Your task to perform on an android device: change your default location settings in chrome Image 0: 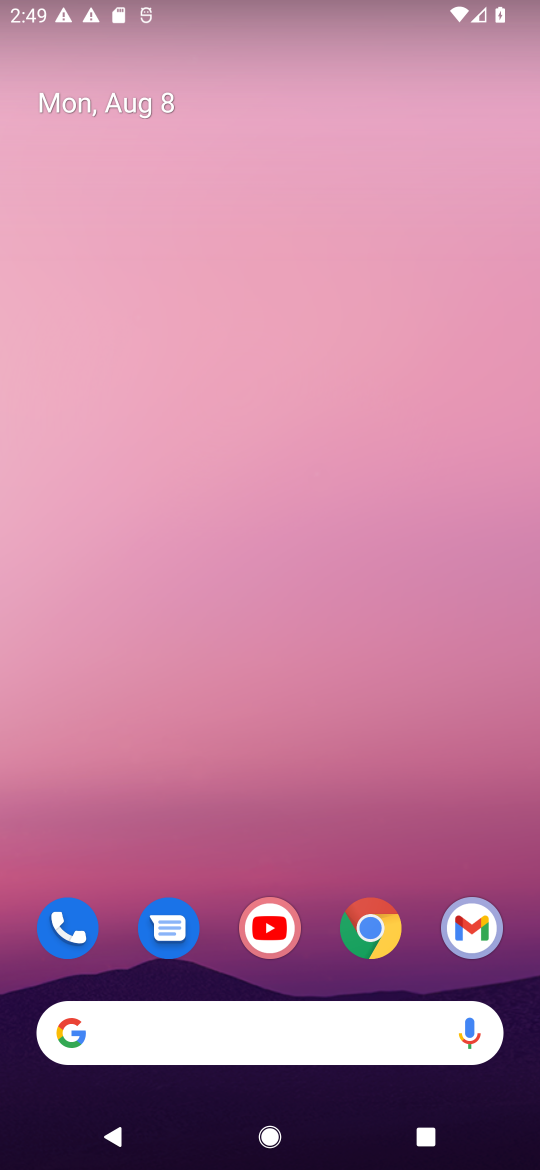
Step 0: click (357, 934)
Your task to perform on an android device: change your default location settings in chrome Image 1: 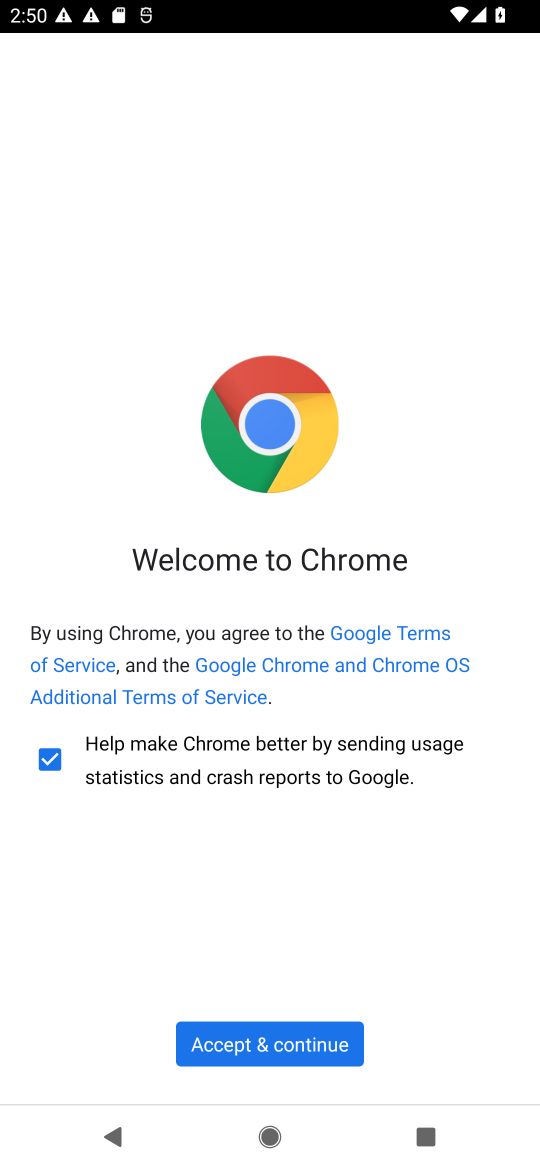
Step 1: click (324, 1054)
Your task to perform on an android device: change your default location settings in chrome Image 2: 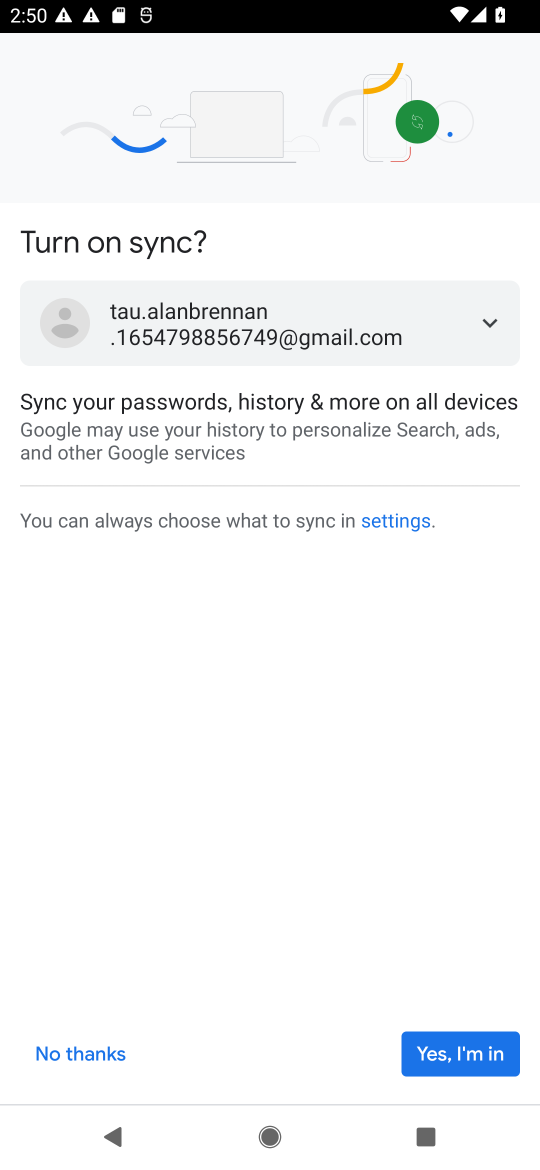
Step 2: click (422, 1052)
Your task to perform on an android device: change your default location settings in chrome Image 3: 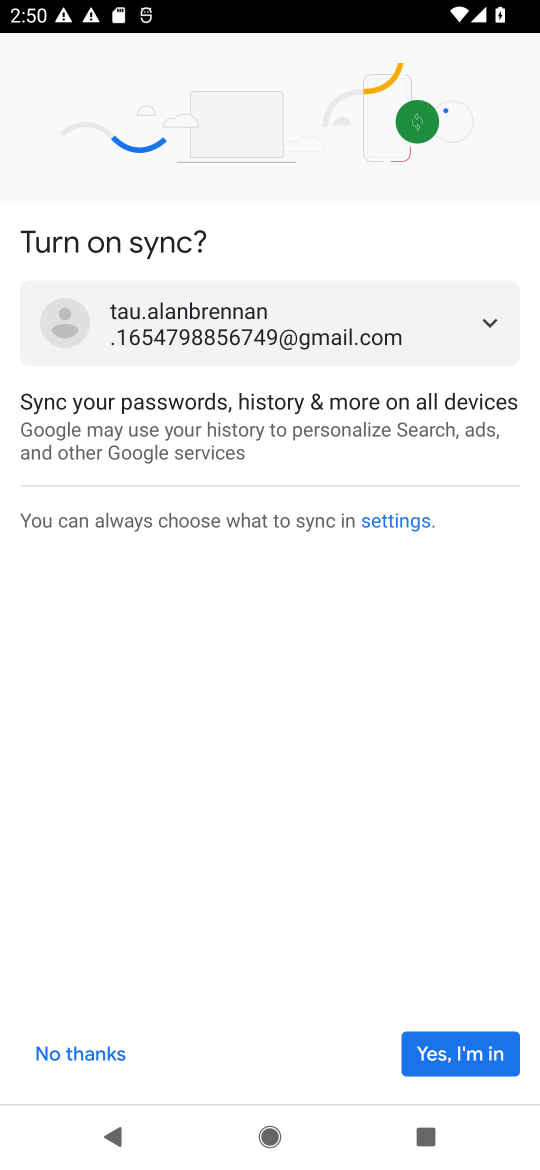
Step 3: click (451, 1052)
Your task to perform on an android device: change your default location settings in chrome Image 4: 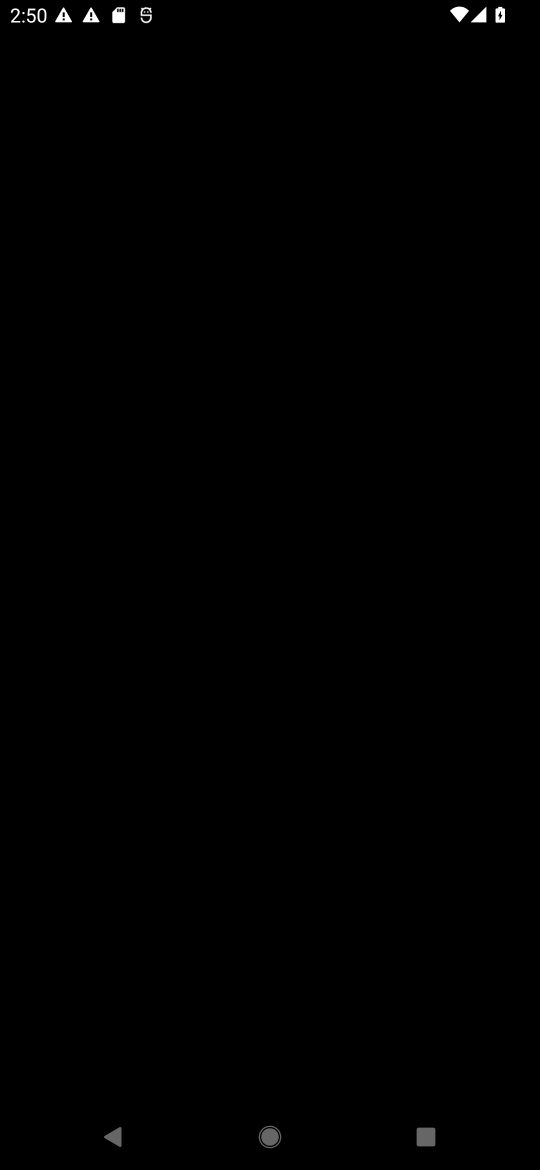
Step 4: click (451, 1052)
Your task to perform on an android device: change your default location settings in chrome Image 5: 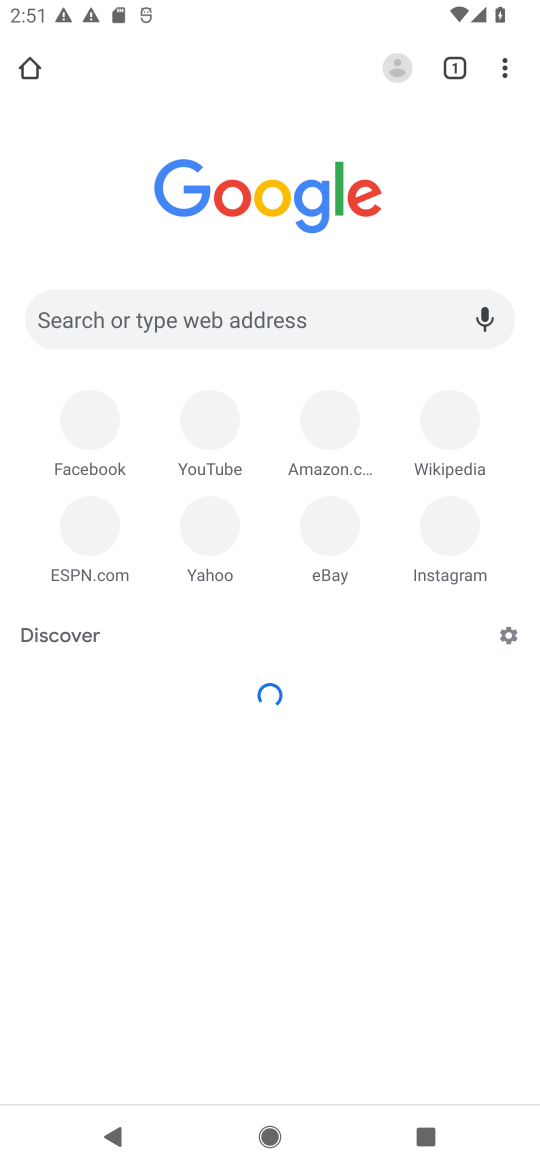
Step 5: click (514, 71)
Your task to perform on an android device: change your default location settings in chrome Image 6: 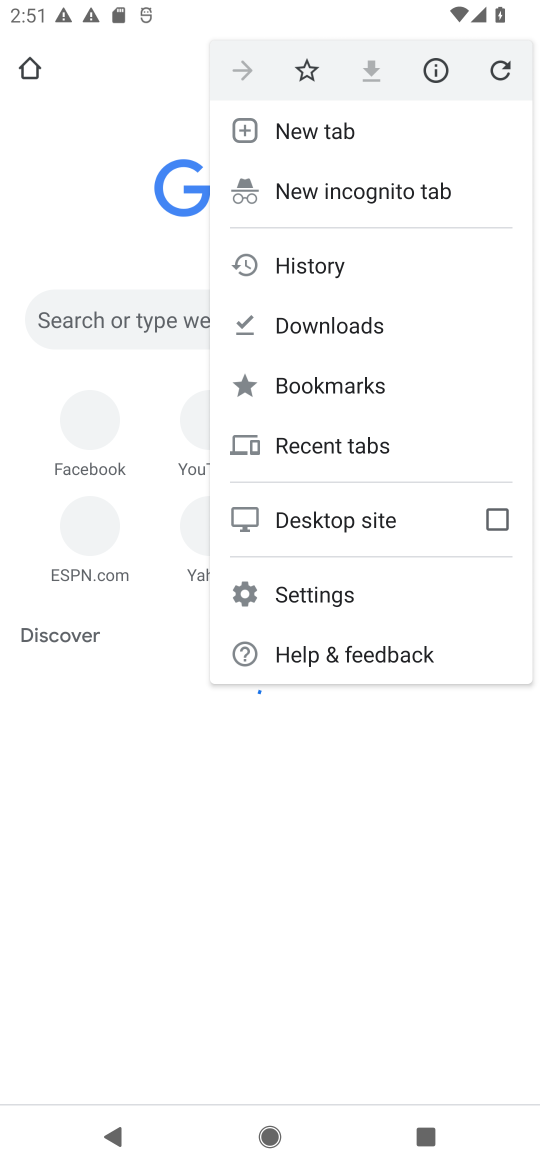
Step 6: click (362, 595)
Your task to perform on an android device: change your default location settings in chrome Image 7: 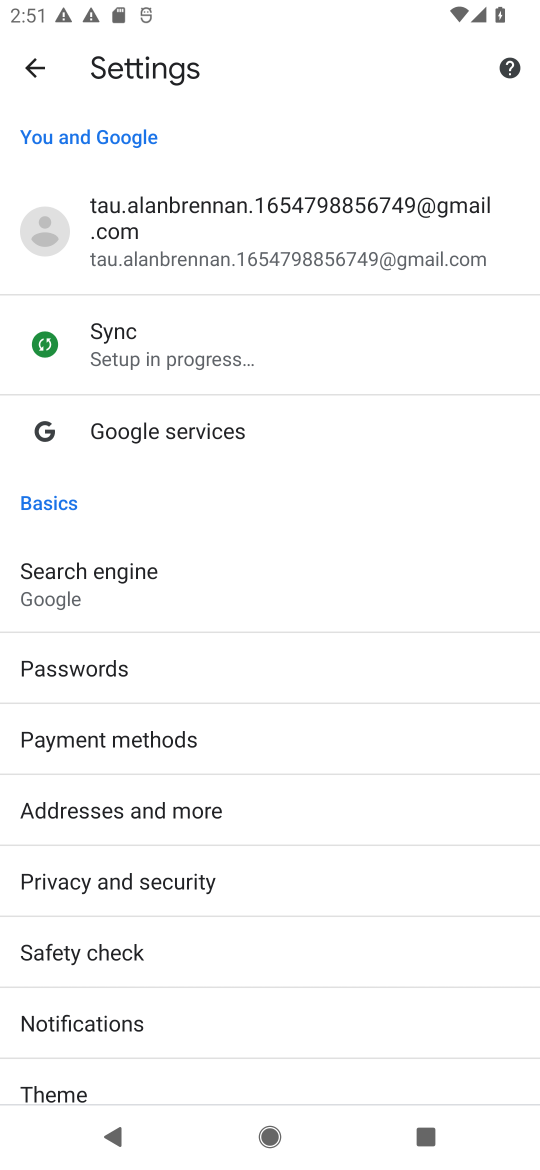
Step 7: drag from (184, 1059) to (180, 487)
Your task to perform on an android device: change your default location settings in chrome Image 8: 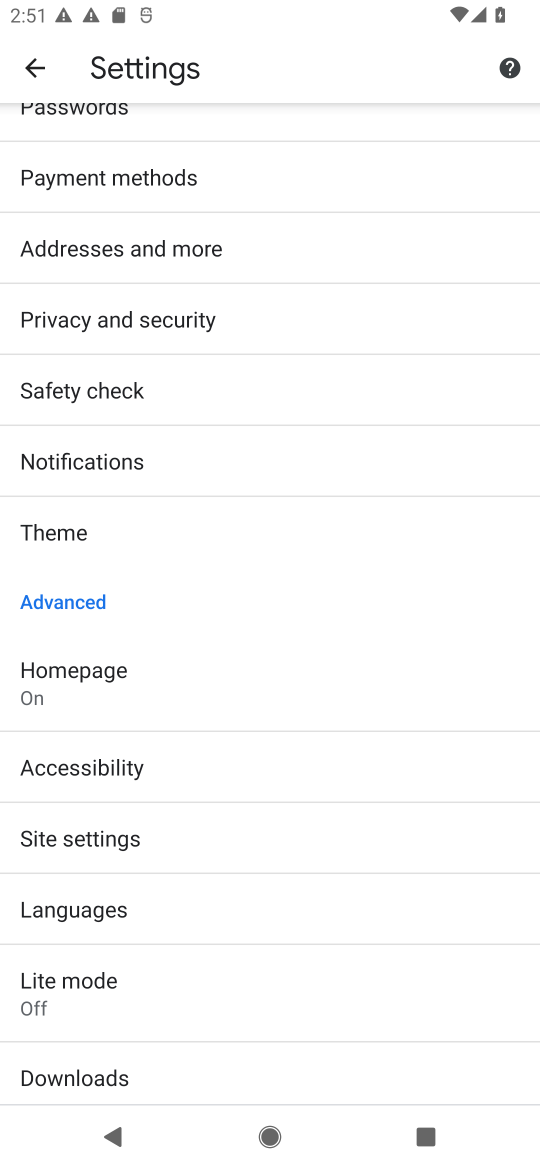
Step 8: drag from (392, 1011) to (422, 401)
Your task to perform on an android device: change your default location settings in chrome Image 9: 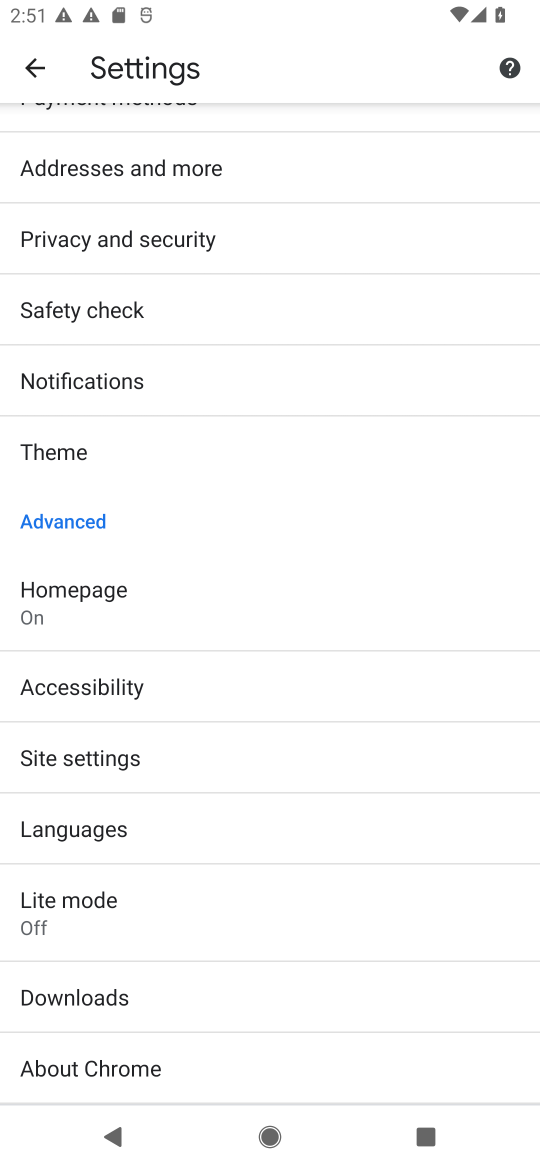
Step 9: drag from (282, 290) to (293, 1043)
Your task to perform on an android device: change your default location settings in chrome Image 10: 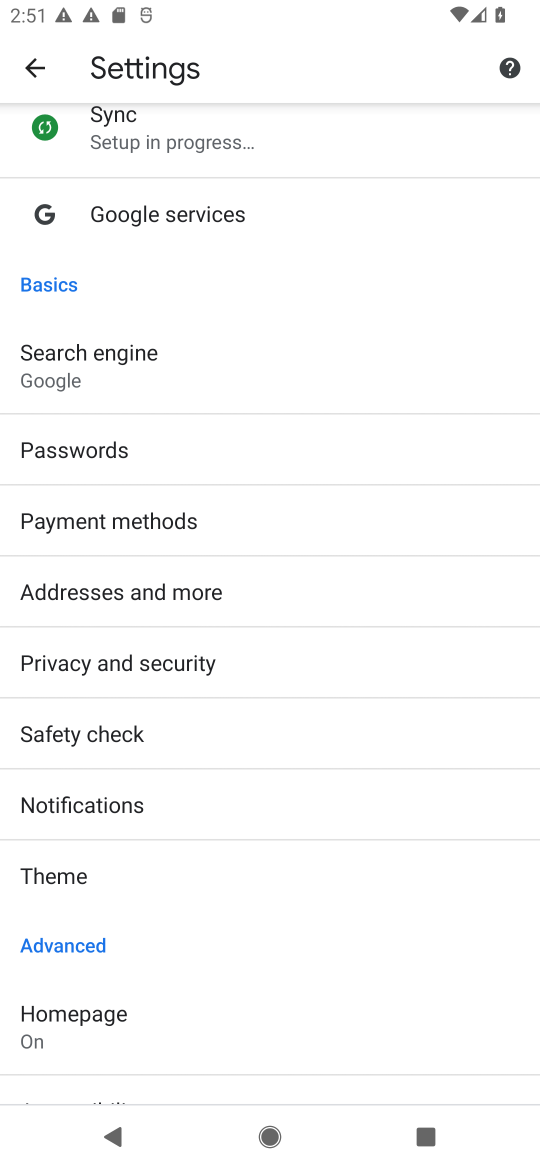
Step 10: drag from (341, 353) to (363, 999)
Your task to perform on an android device: change your default location settings in chrome Image 11: 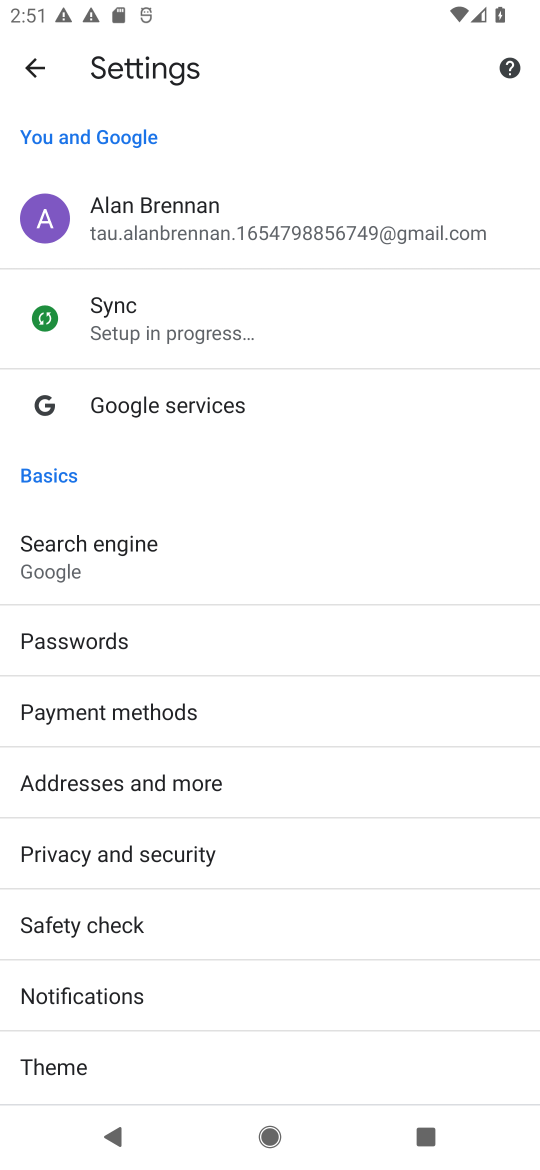
Step 11: drag from (341, 925) to (317, 463)
Your task to perform on an android device: change your default location settings in chrome Image 12: 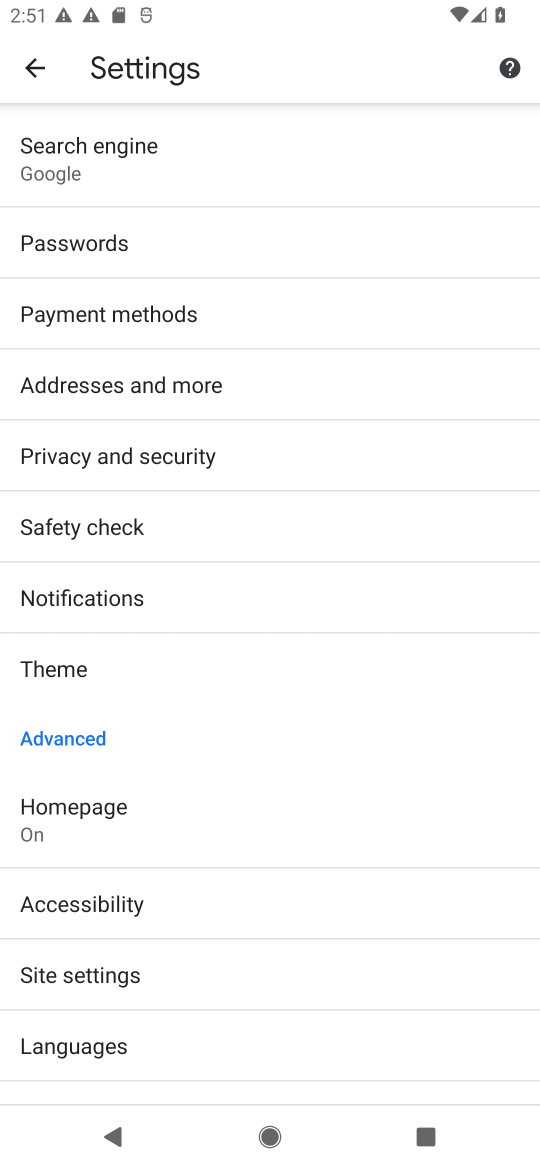
Step 12: drag from (308, 825) to (239, 321)
Your task to perform on an android device: change your default location settings in chrome Image 13: 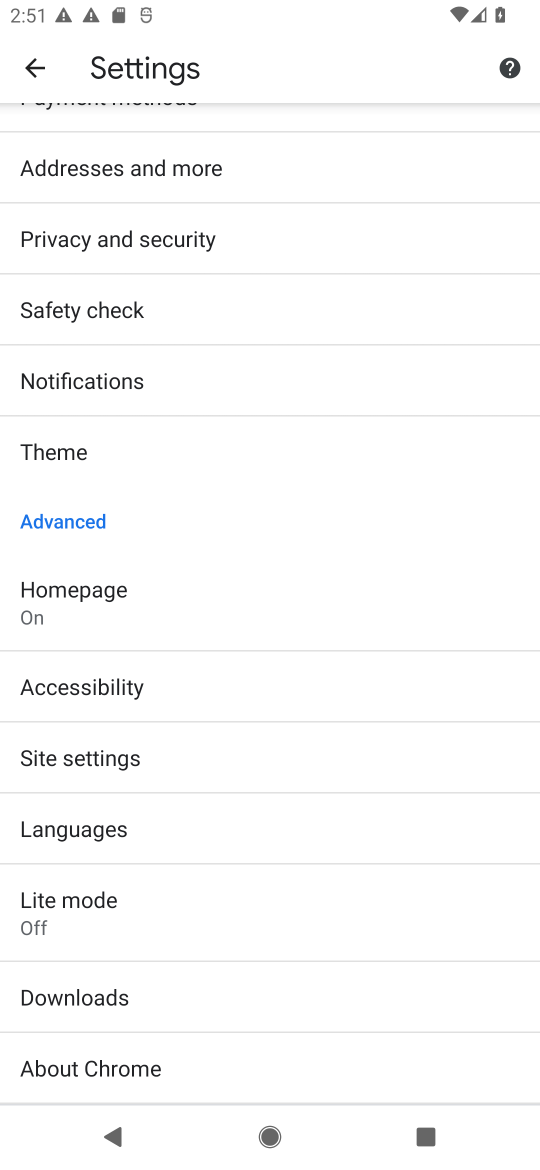
Step 13: click (157, 765)
Your task to perform on an android device: change your default location settings in chrome Image 14: 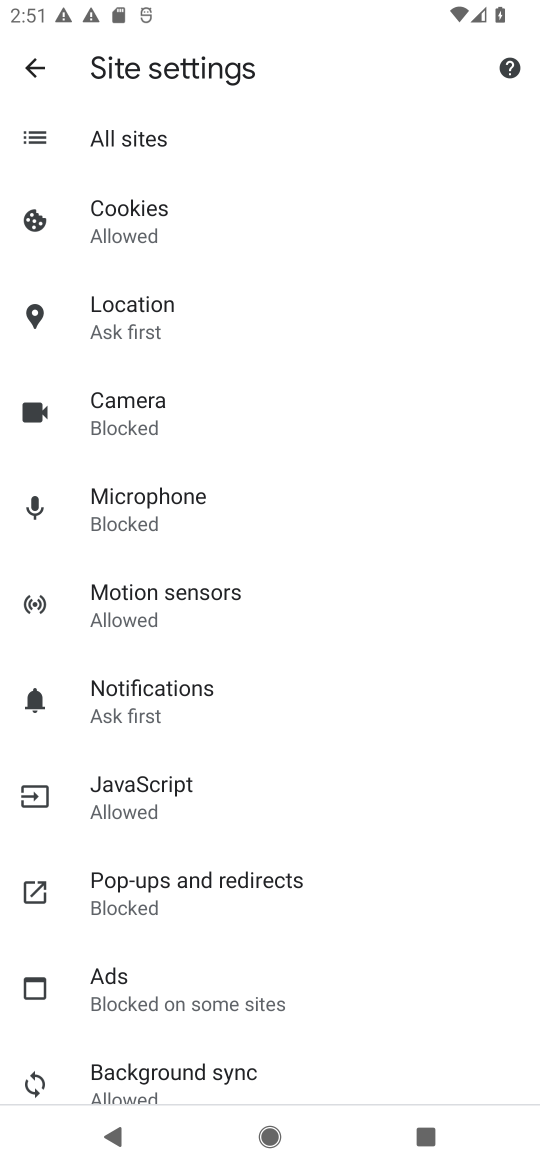
Step 14: click (235, 328)
Your task to perform on an android device: change your default location settings in chrome Image 15: 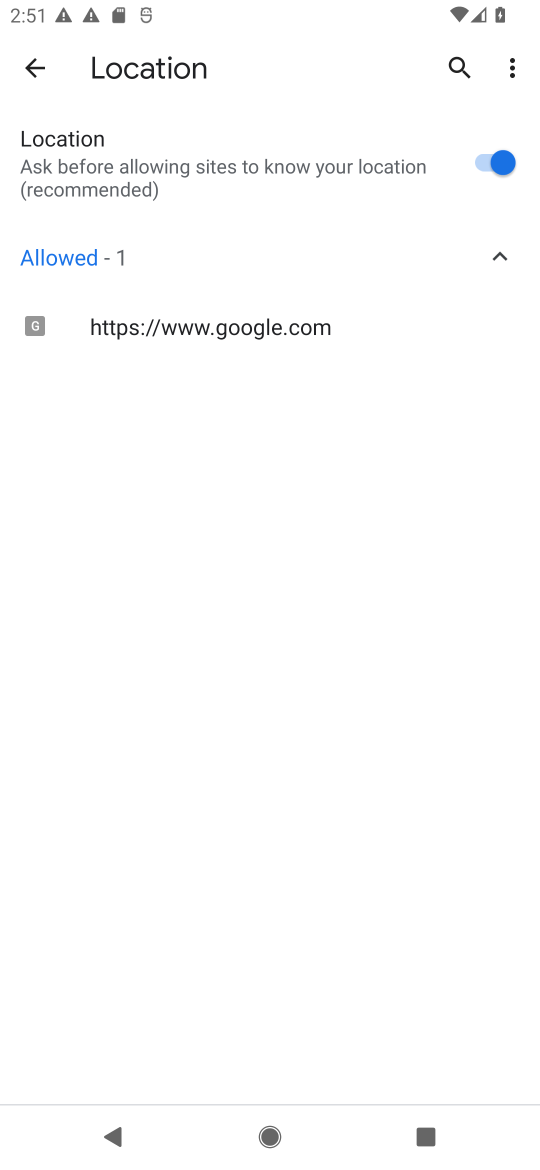
Step 15: click (483, 167)
Your task to perform on an android device: change your default location settings in chrome Image 16: 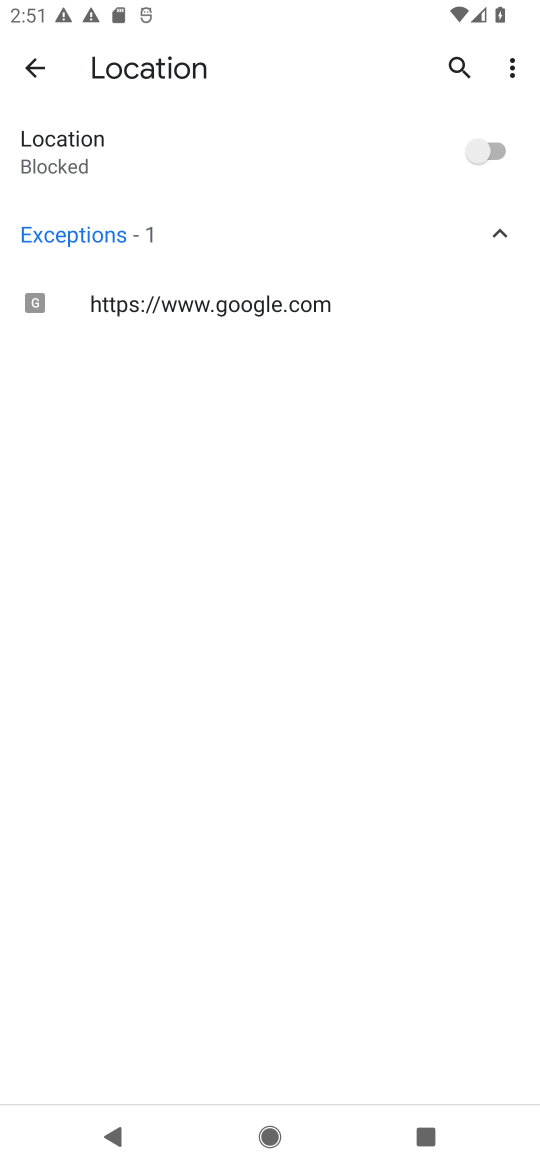
Step 16: task complete